Your task to perform on an android device: toggle notifications settings in the gmail app Image 0: 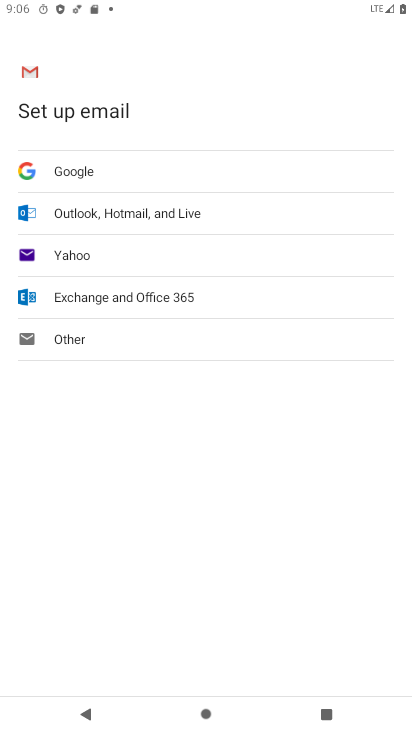
Step 0: press home button
Your task to perform on an android device: toggle notifications settings in the gmail app Image 1: 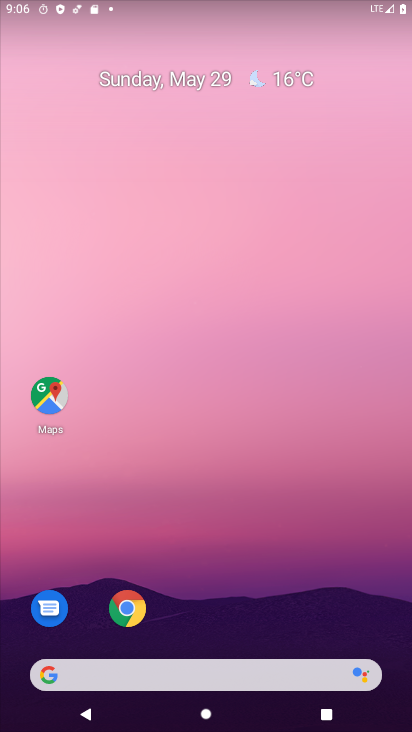
Step 1: drag from (185, 617) to (146, 0)
Your task to perform on an android device: toggle notifications settings in the gmail app Image 2: 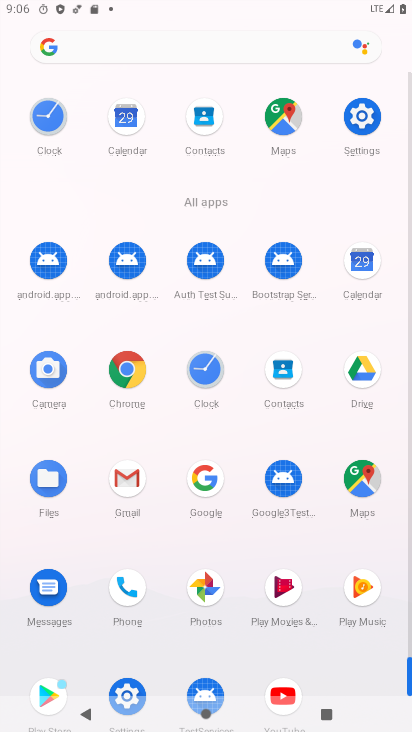
Step 2: click (130, 486)
Your task to perform on an android device: toggle notifications settings in the gmail app Image 3: 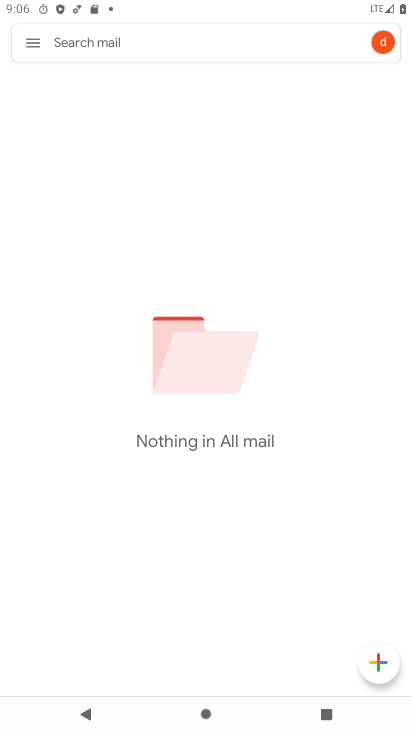
Step 3: click (36, 39)
Your task to perform on an android device: toggle notifications settings in the gmail app Image 4: 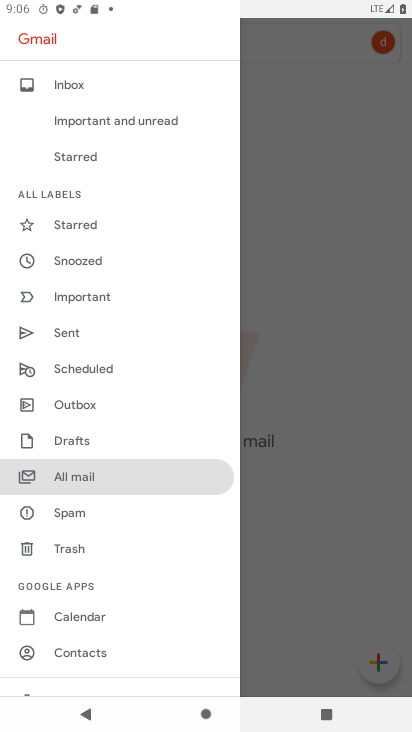
Step 4: drag from (97, 657) to (98, 396)
Your task to perform on an android device: toggle notifications settings in the gmail app Image 5: 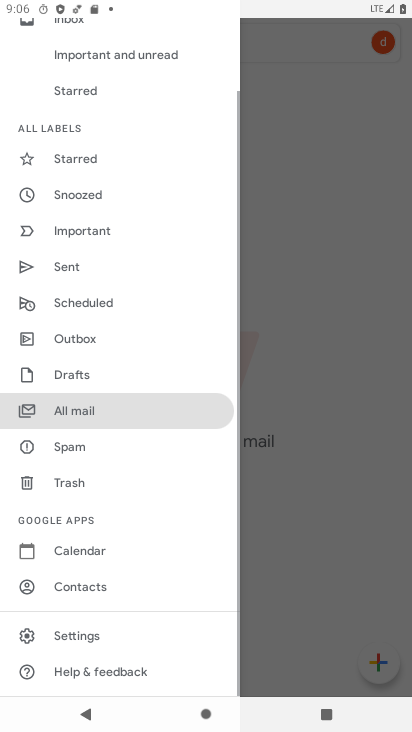
Step 5: click (83, 636)
Your task to perform on an android device: toggle notifications settings in the gmail app Image 6: 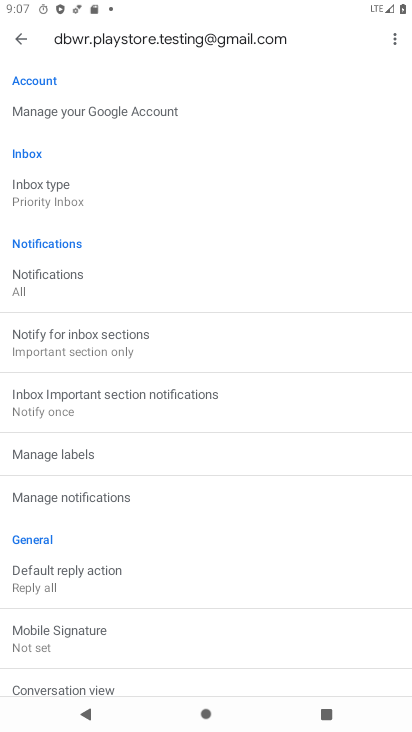
Step 6: click (84, 502)
Your task to perform on an android device: toggle notifications settings in the gmail app Image 7: 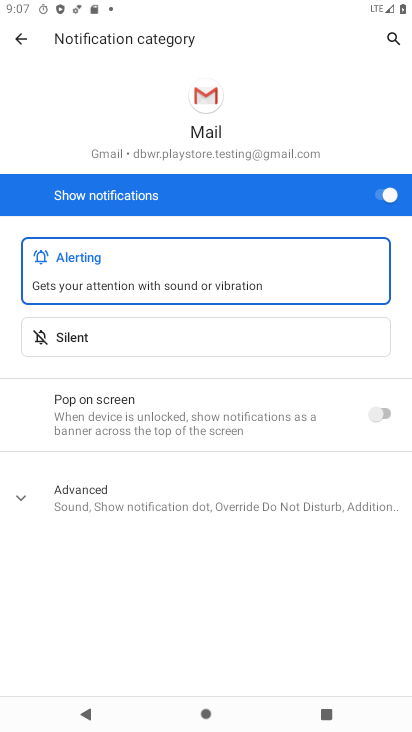
Step 7: click (389, 415)
Your task to perform on an android device: toggle notifications settings in the gmail app Image 8: 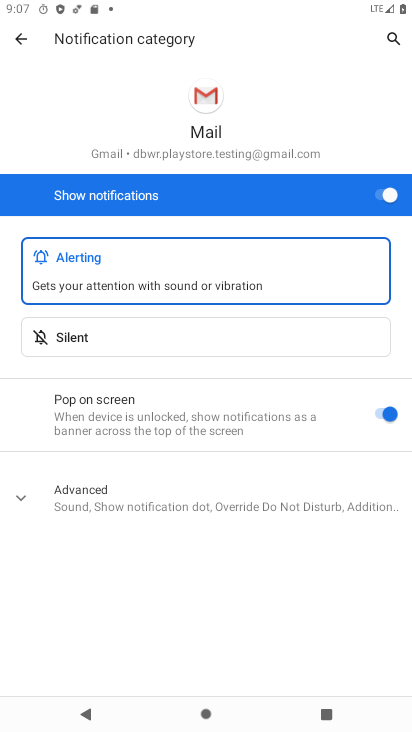
Step 8: task complete